Your task to perform on an android device: delete the emails in spam in the gmail app Image 0: 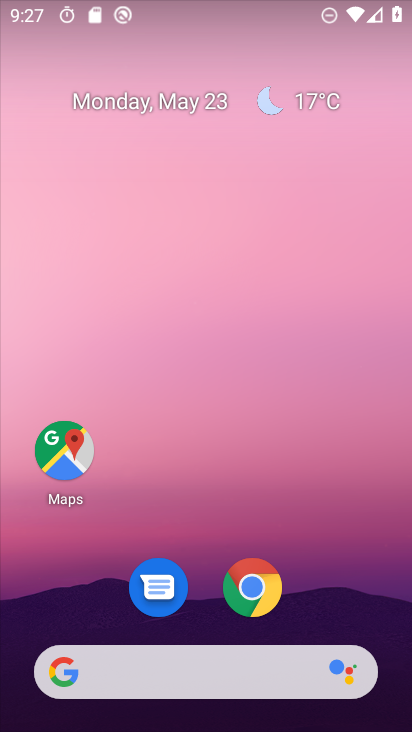
Step 0: drag from (194, 535) to (219, 133)
Your task to perform on an android device: delete the emails in spam in the gmail app Image 1: 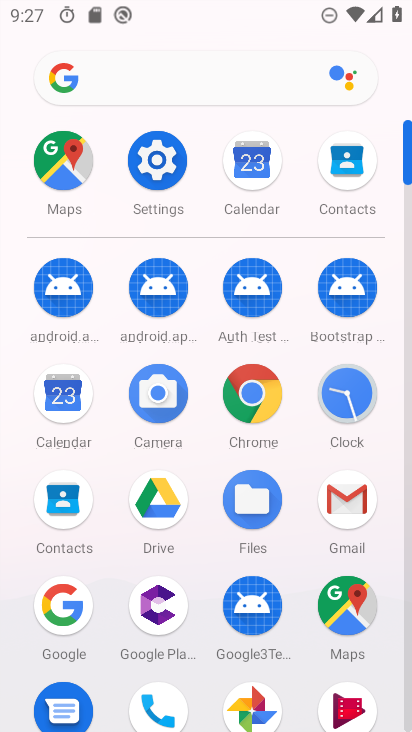
Step 1: click (326, 501)
Your task to perform on an android device: delete the emails in spam in the gmail app Image 2: 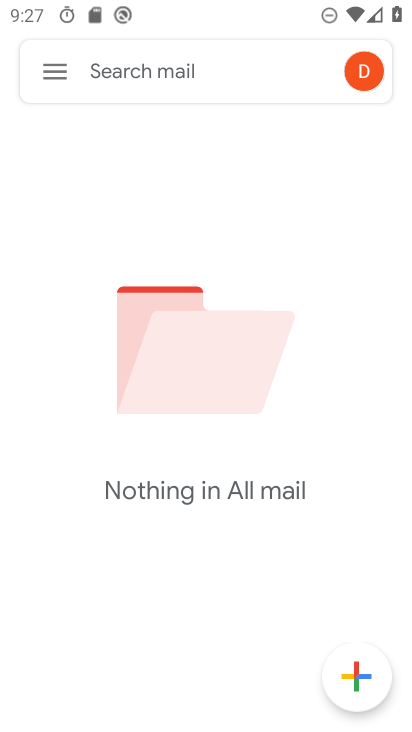
Step 2: click (59, 68)
Your task to perform on an android device: delete the emails in spam in the gmail app Image 3: 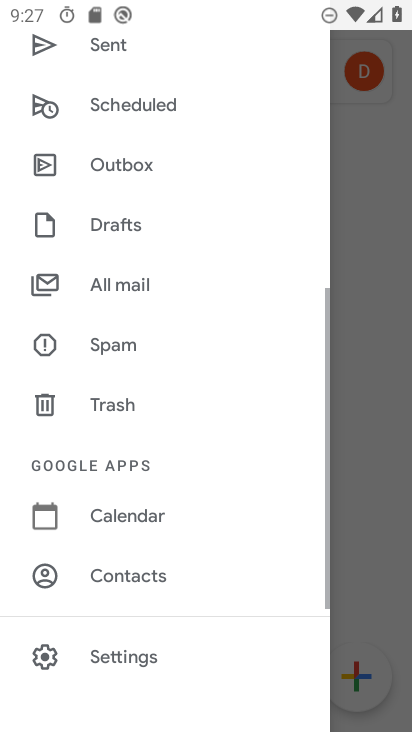
Step 3: click (101, 348)
Your task to perform on an android device: delete the emails in spam in the gmail app Image 4: 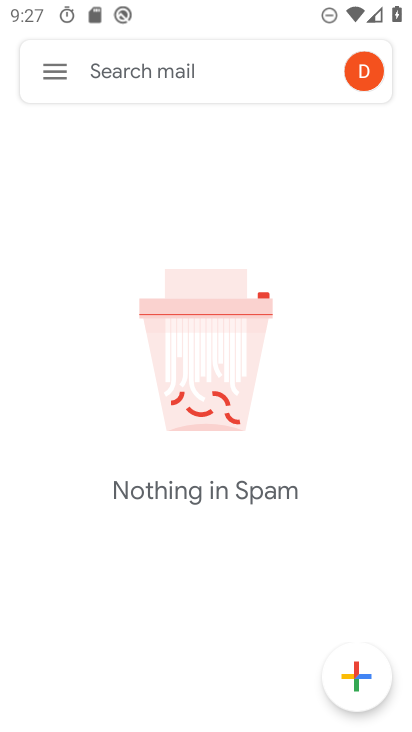
Step 4: task complete